Your task to perform on an android device: Search for seafood restaurants on Google Maps Image 0: 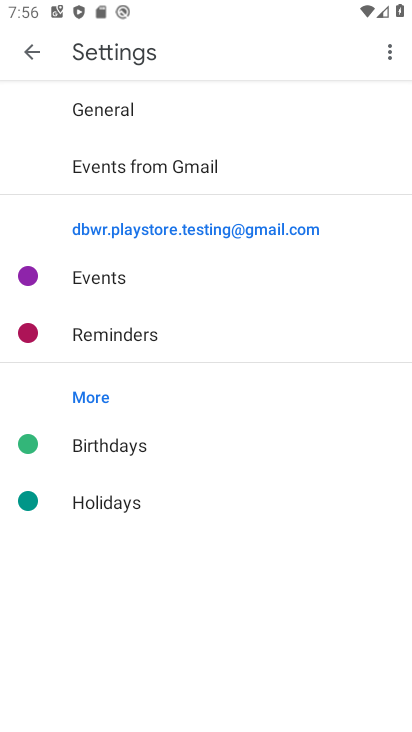
Step 0: press home button
Your task to perform on an android device: Search for seafood restaurants on Google Maps Image 1: 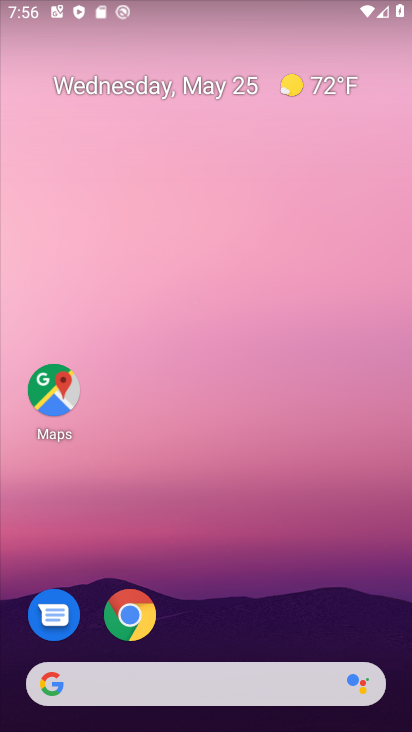
Step 1: click (39, 373)
Your task to perform on an android device: Search for seafood restaurants on Google Maps Image 2: 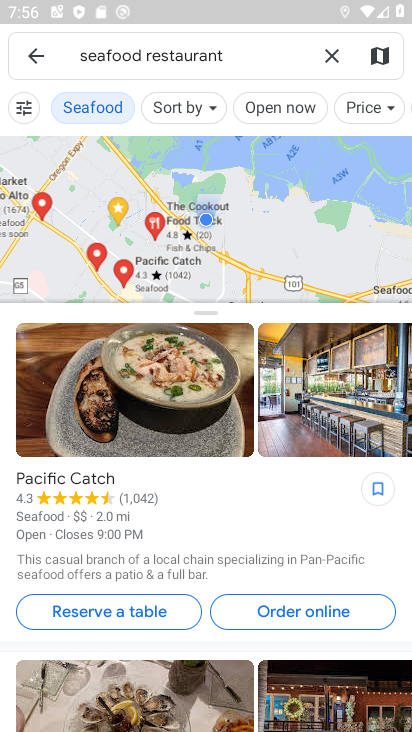
Step 2: click (332, 50)
Your task to perform on an android device: Search for seafood restaurants on Google Maps Image 3: 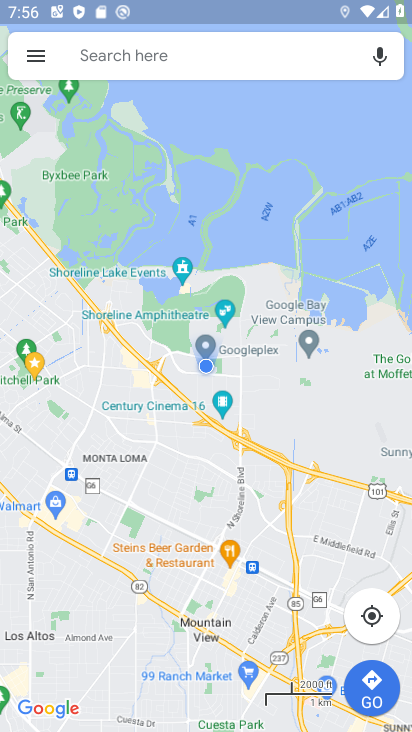
Step 3: click (210, 62)
Your task to perform on an android device: Search for seafood restaurants on Google Maps Image 4: 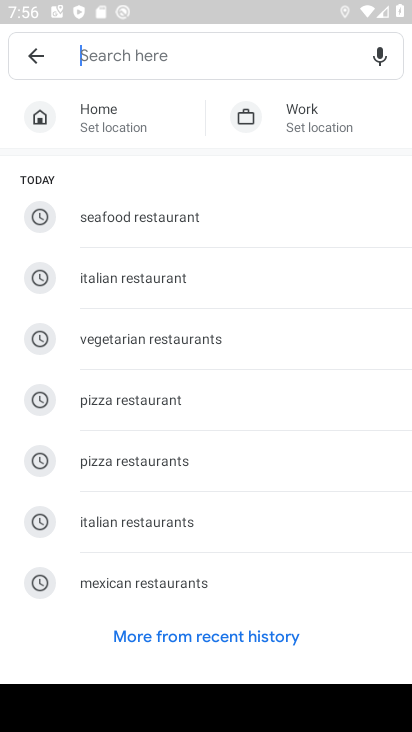
Step 4: click (174, 211)
Your task to perform on an android device: Search for seafood restaurants on Google Maps Image 5: 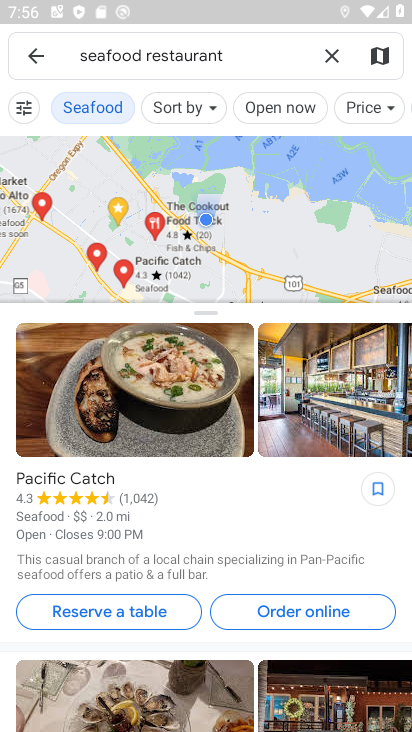
Step 5: task complete